Your task to perform on an android device: open app "Indeed Job Search" Image 0: 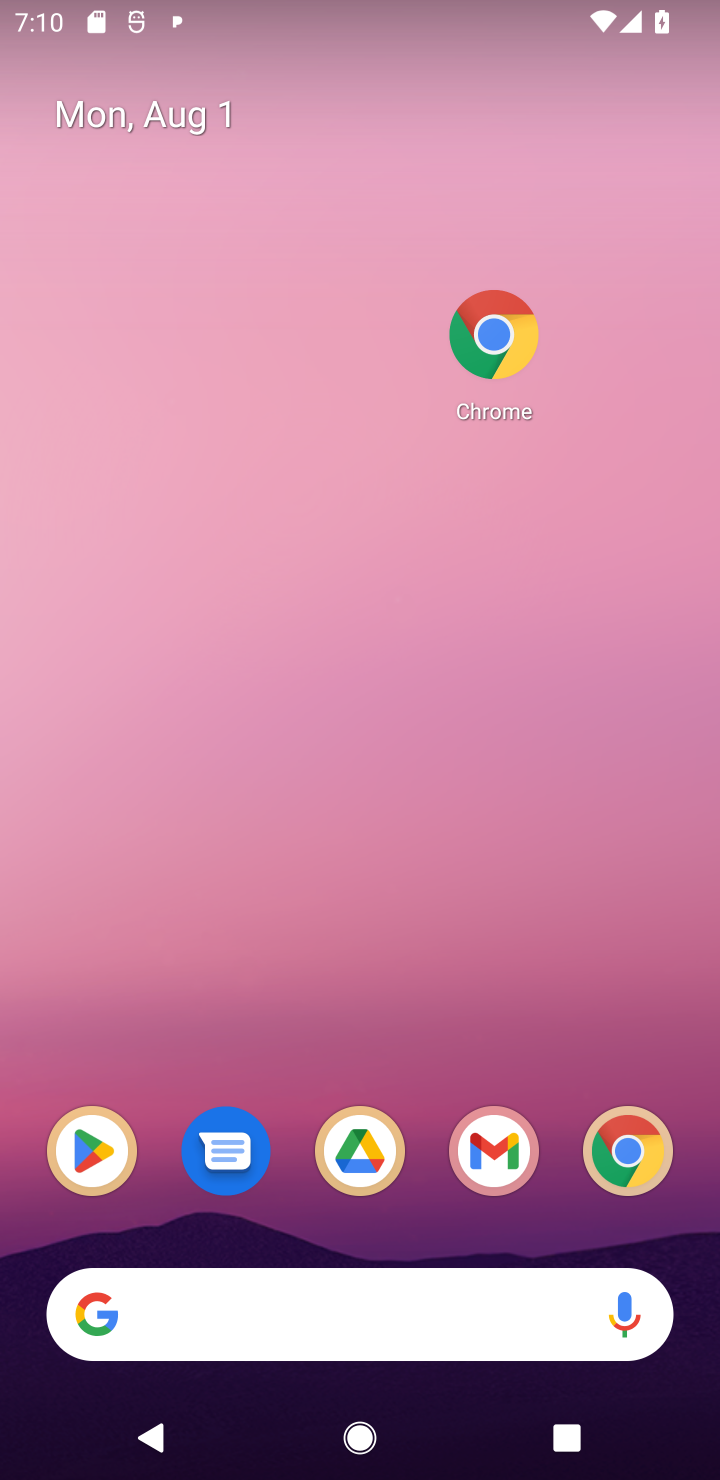
Step 0: click (80, 1158)
Your task to perform on an android device: open app "Indeed Job Search" Image 1: 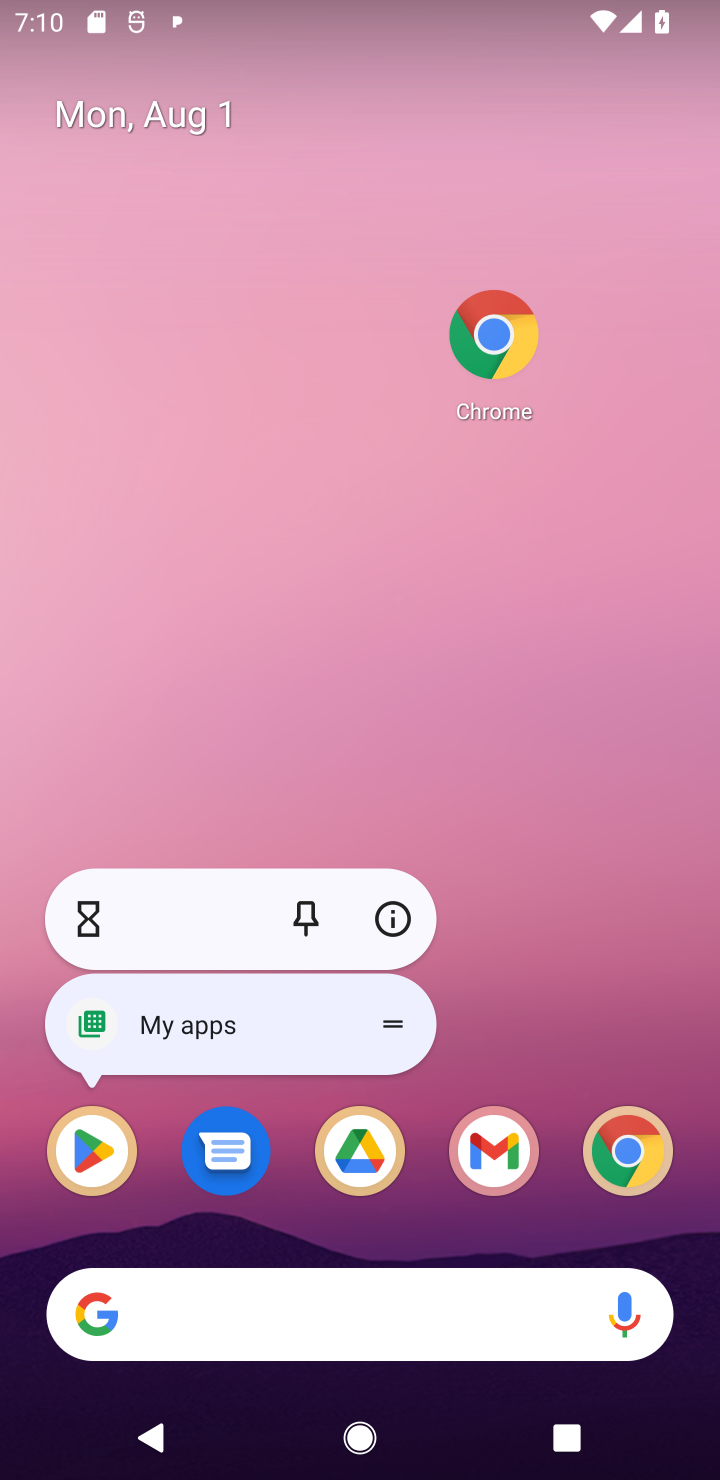
Step 1: click (95, 1177)
Your task to perform on an android device: open app "Indeed Job Search" Image 2: 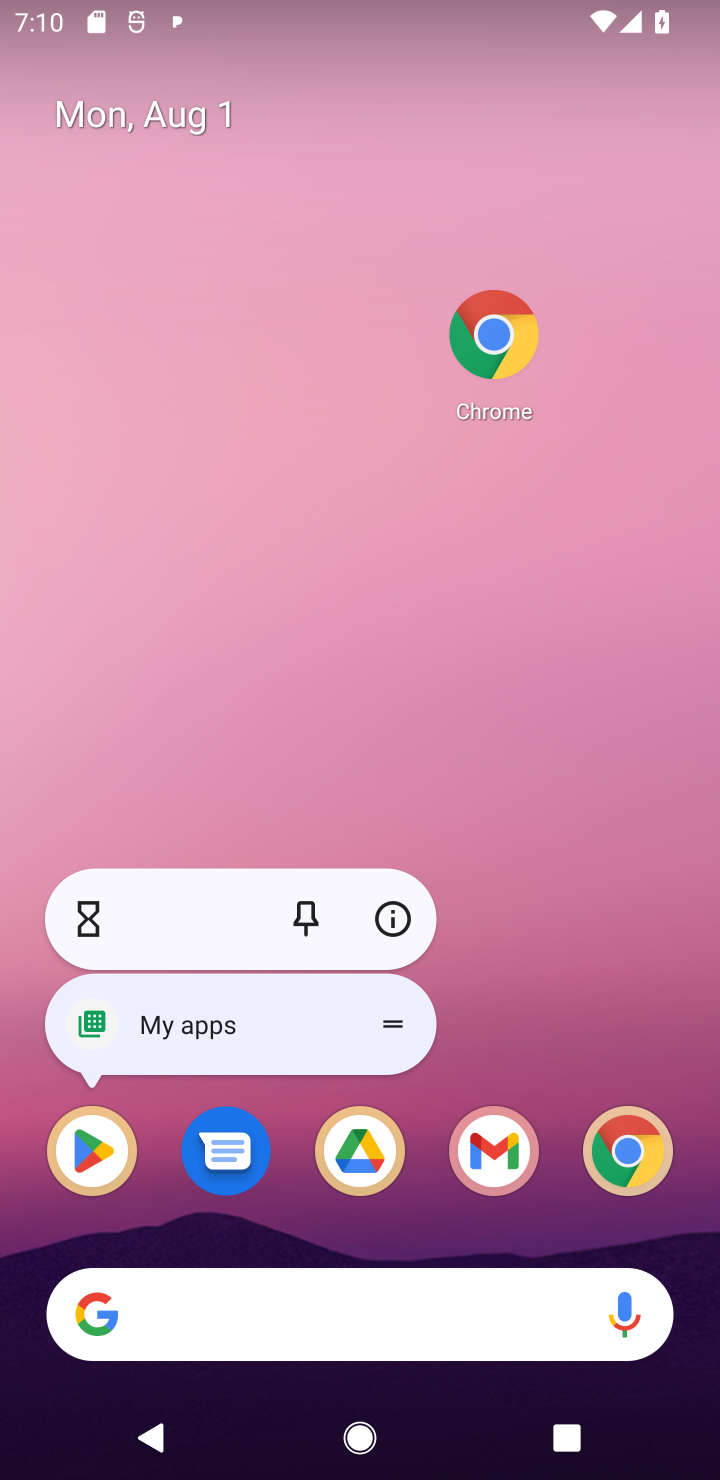
Step 2: click (95, 1177)
Your task to perform on an android device: open app "Indeed Job Search" Image 3: 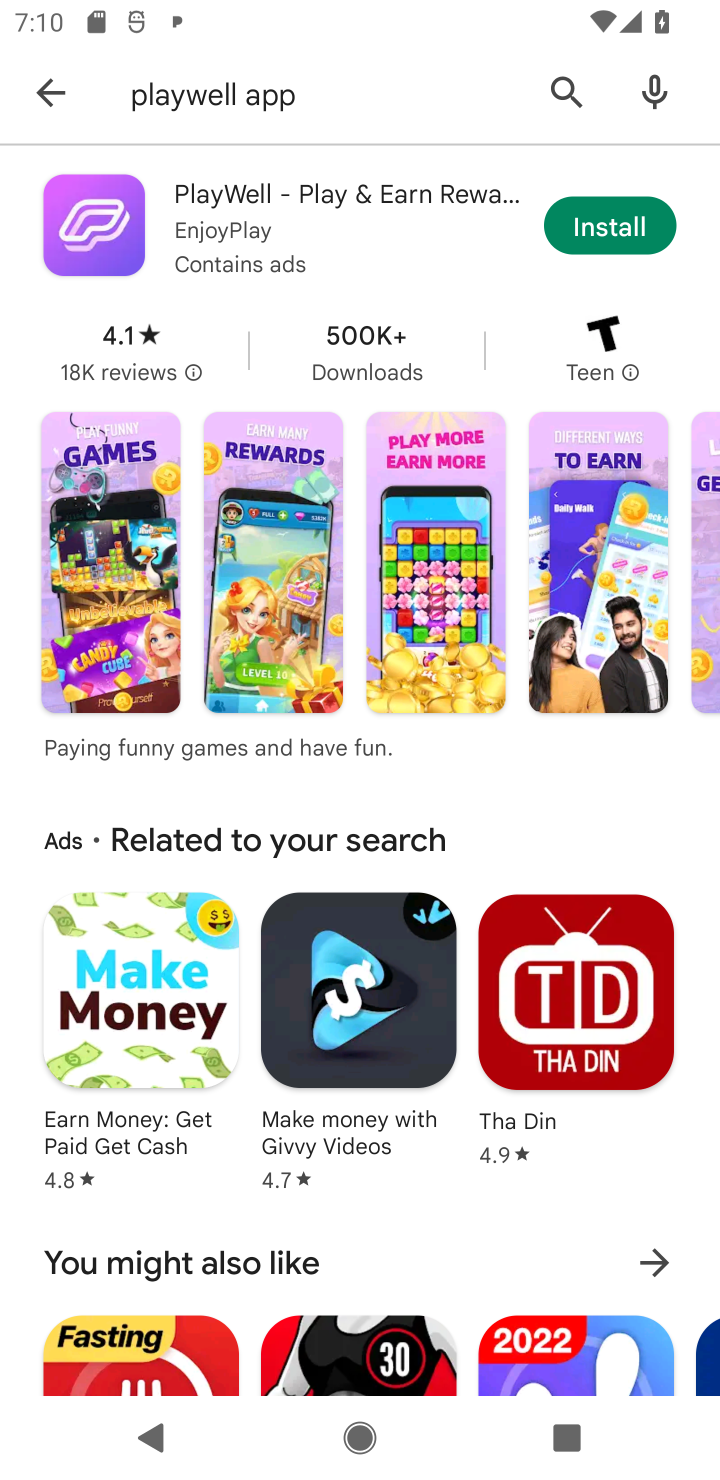
Step 3: click (576, 78)
Your task to perform on an android device: open app "Indeed Job Search" Image 4: 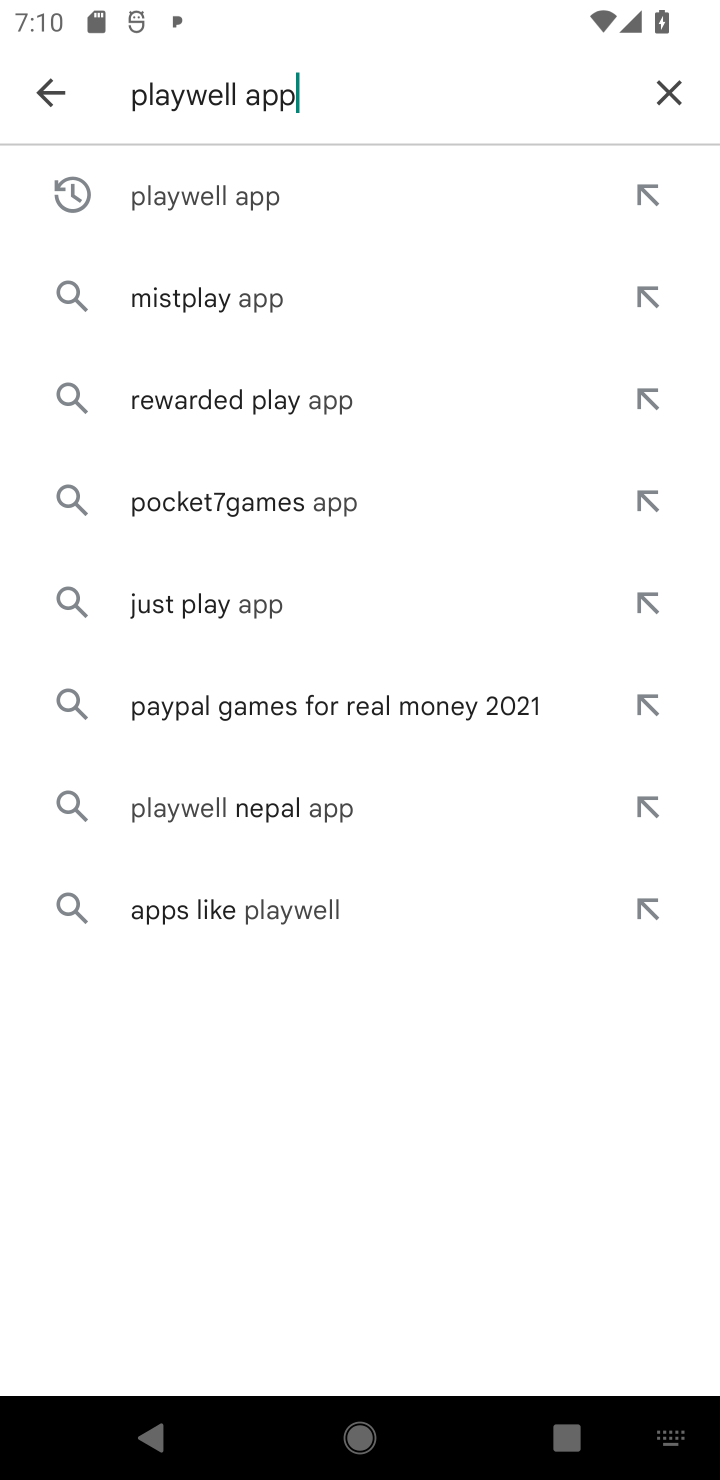
Step 4: click (653, 87)
Your task to perform on an android device: open app "Indeed Job Search" Image 5: 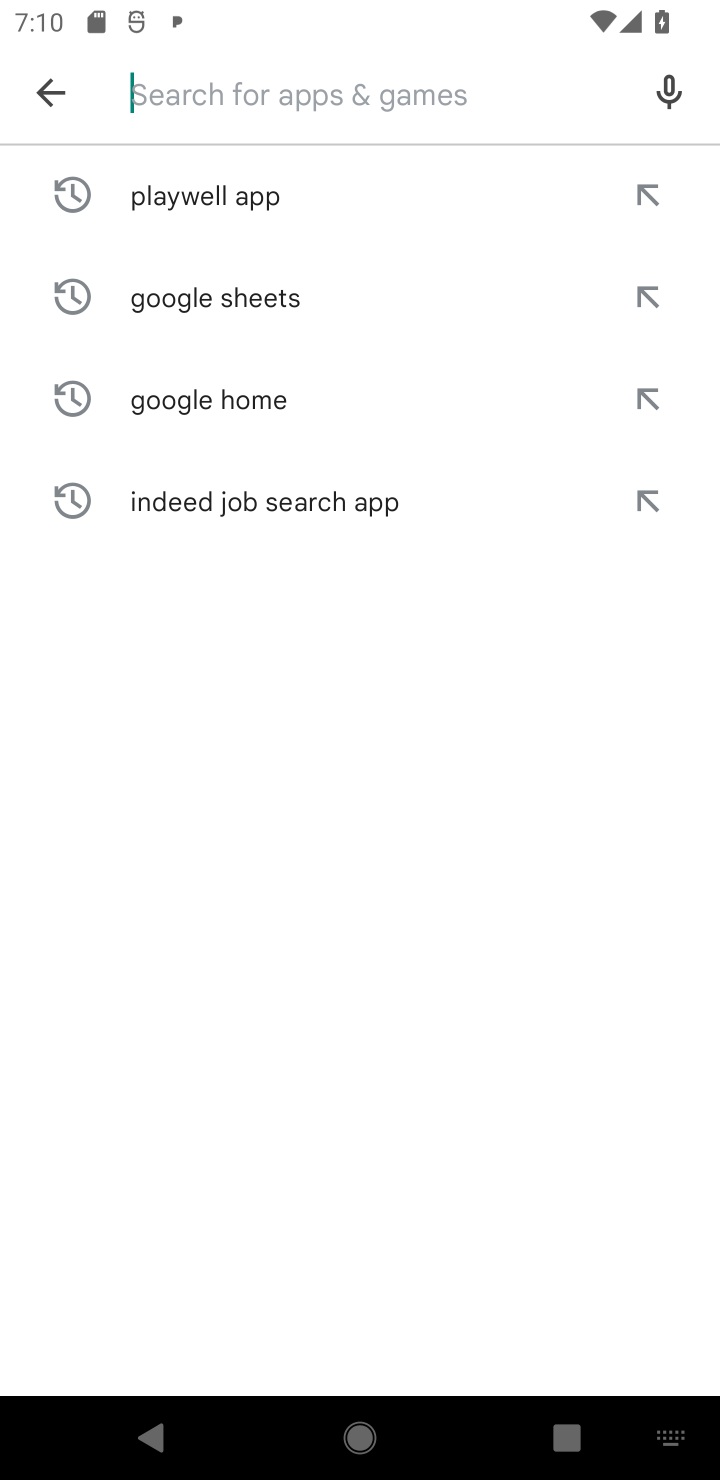
Step 5: type "Indeed Job Search"
Your task to perform on an android device: open app "Indeed Job Search" Image 6: 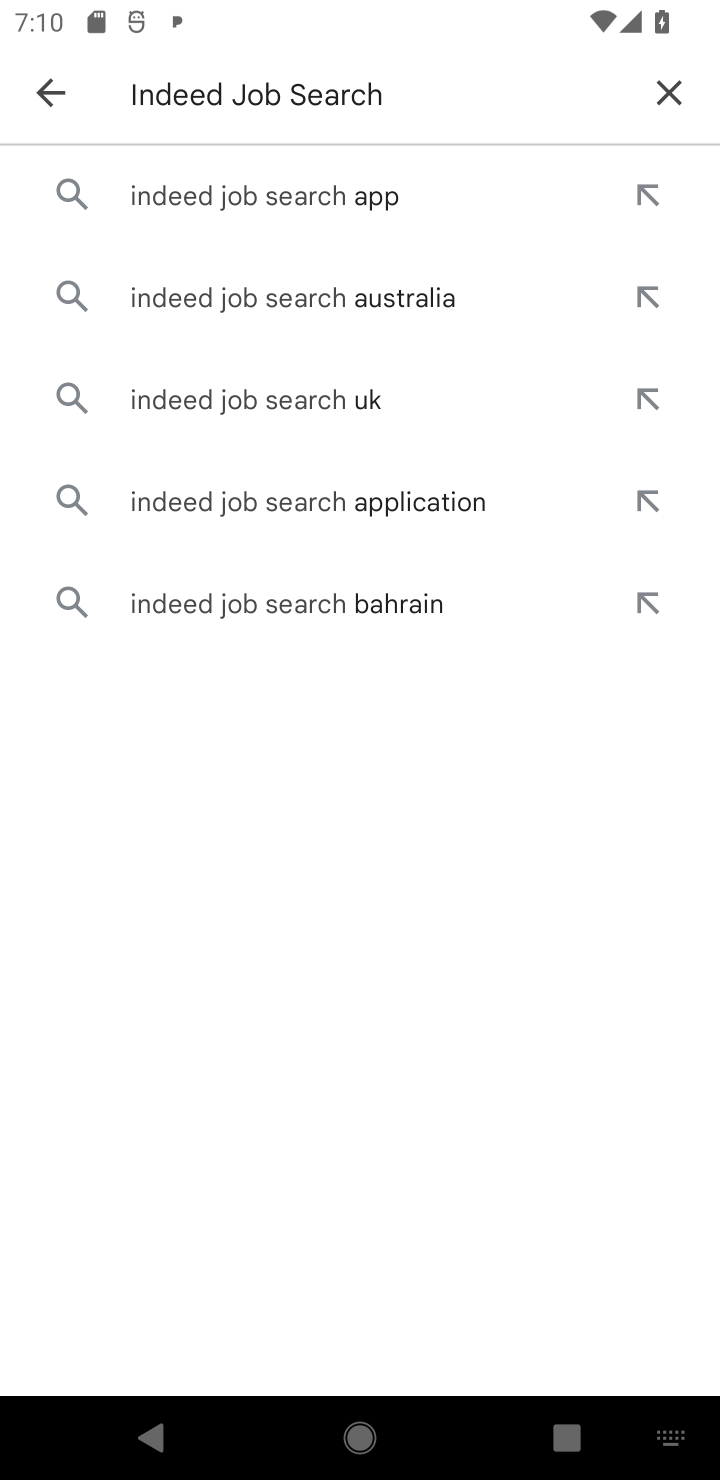
Step 6: click (329, 219)
Your task to perform on an android device: open app "Indeed Job Search" Image 7: 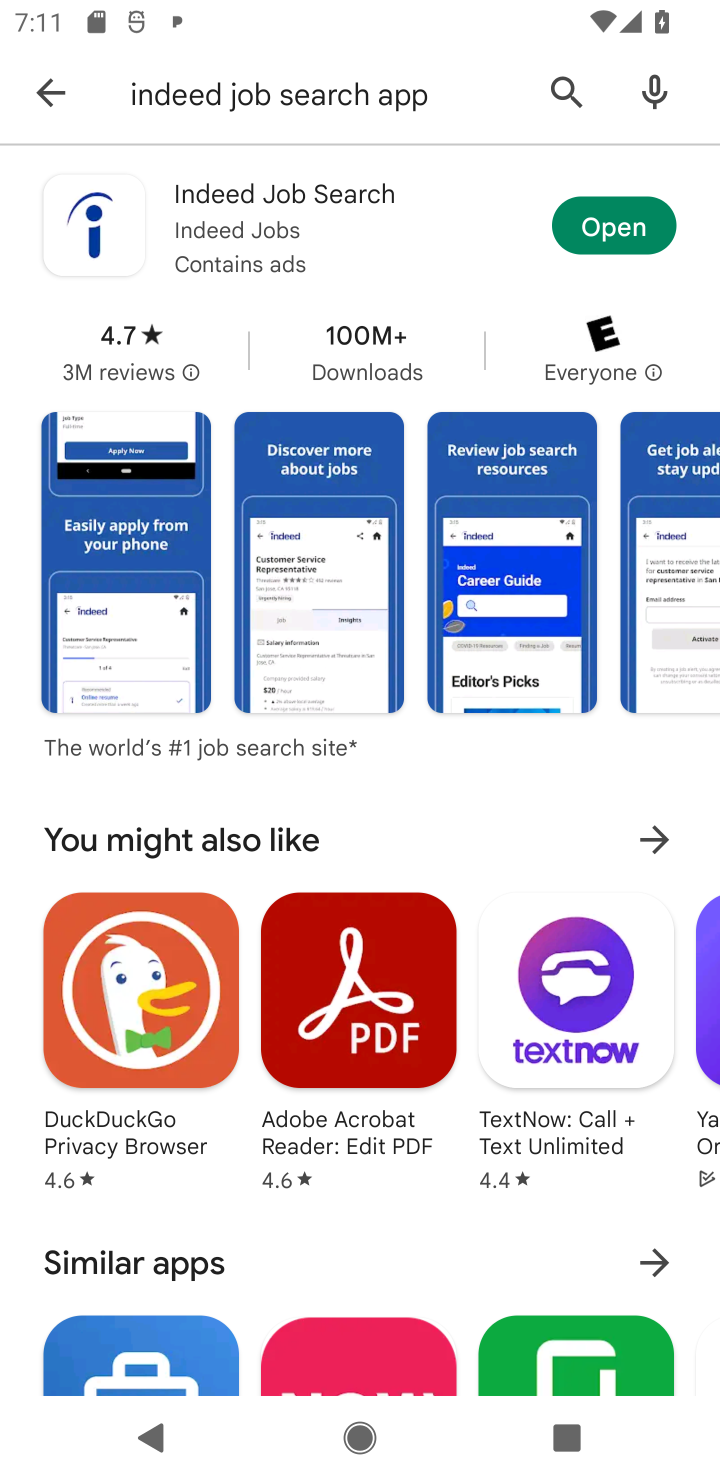
Step 7: click (569, 222)
Your task to perform on an android device: open app "Indeed Job Search" Image 8: 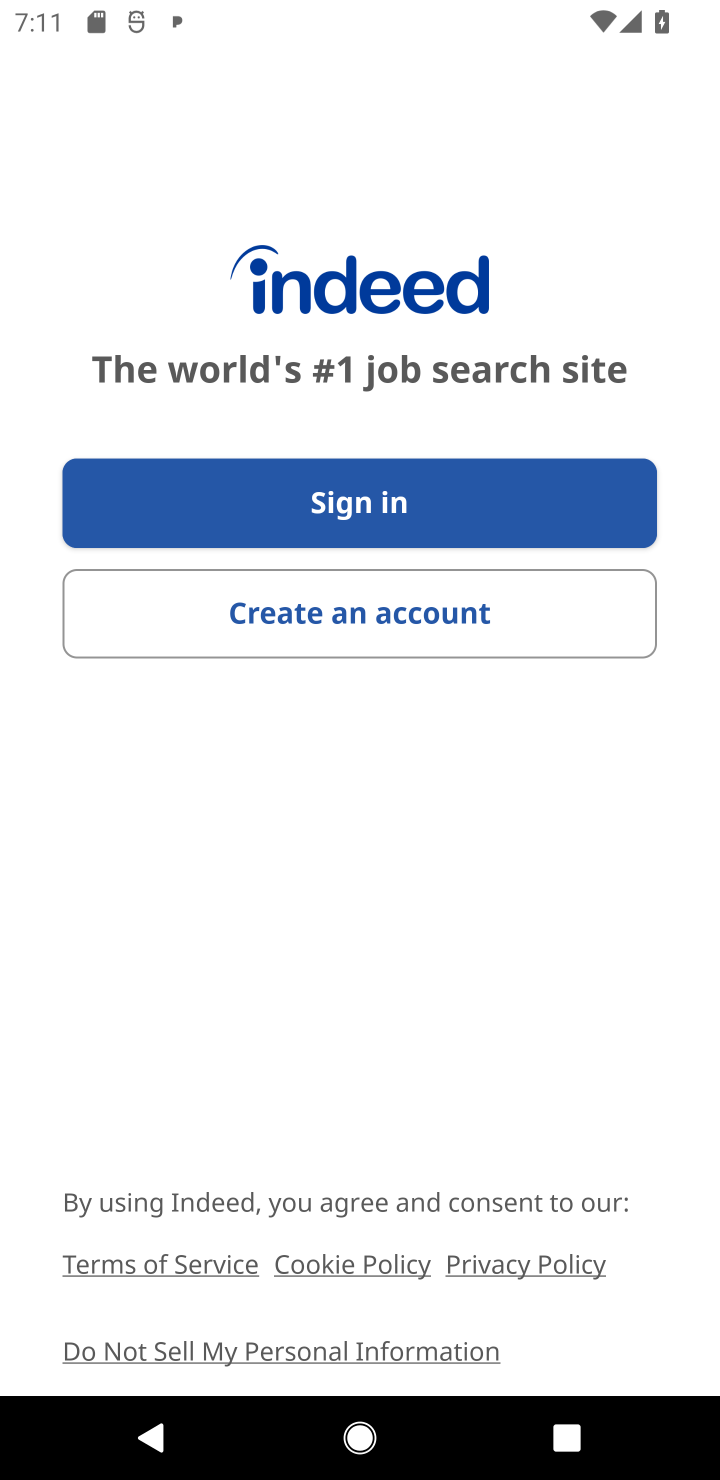
Step 8: task complete